Your task to perform on an android device: Go to CNN.com Image 0: 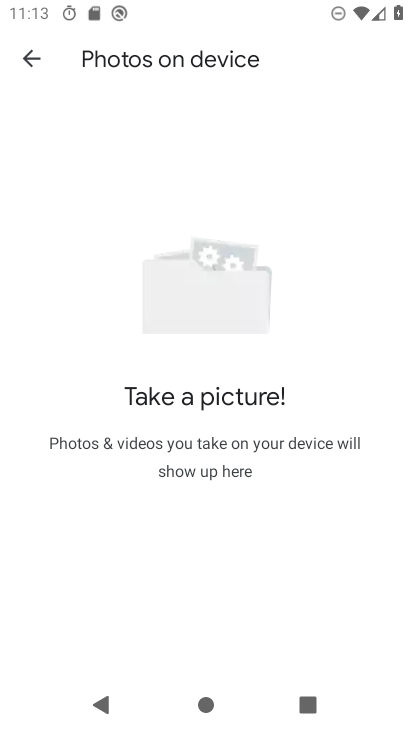
Step 0: press home button
Your task to perform on an android device: Go to CNN.com Image 1: 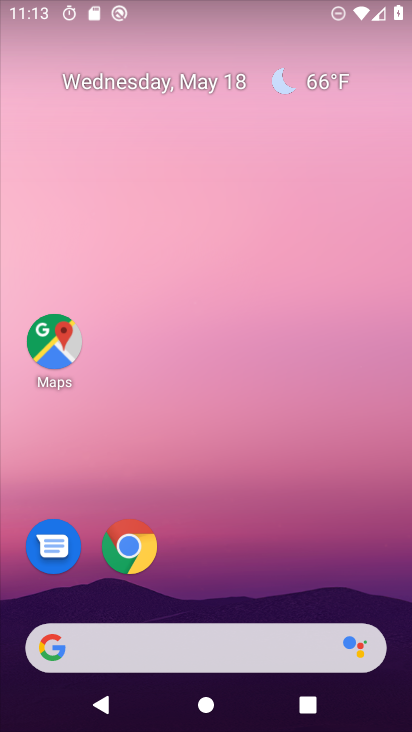
Step 1: click (227, 652)
Your task to perform on an android device: Go to CNN.com Image 2: 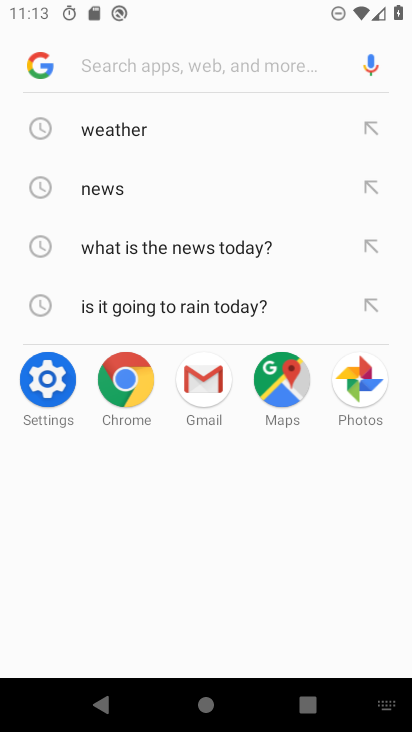
Step 2: type "cnn.com"
Your task to perform on an android device: Go to CNN.com Image 3: 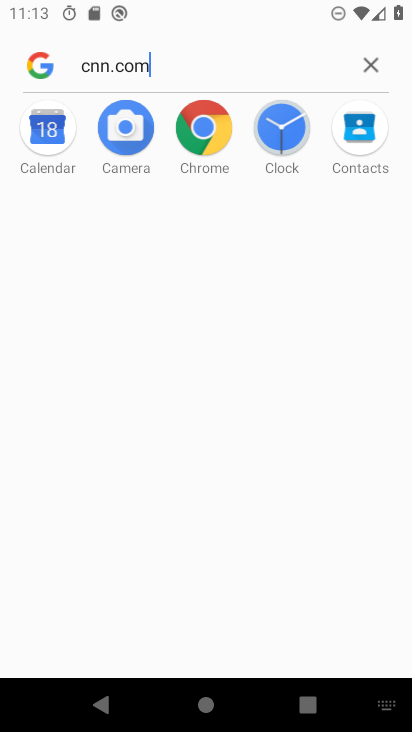
Step 3: type ""
Your task to perform on an android device: Go to CNN.com Image 4: 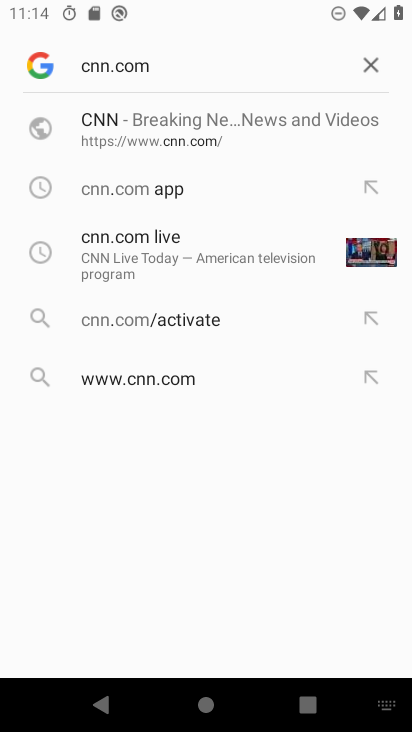
Step 4: click (208, 138)
Your task to perform on an android device: Go to CNN.com Image 5: 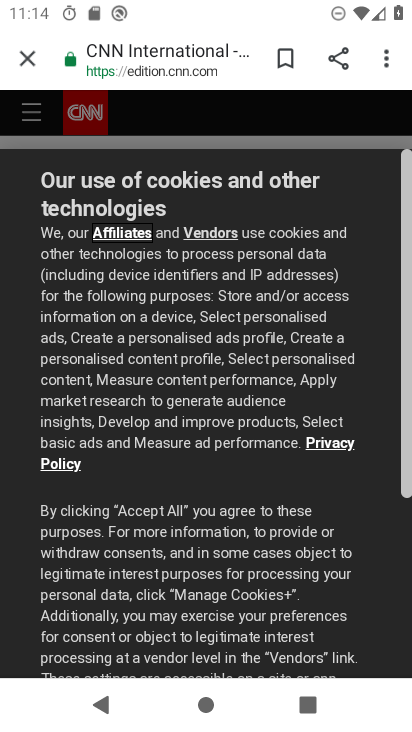
Step 5: task complete